Your task to perform on an android device: refresh tabs in the chrome app Image 0: 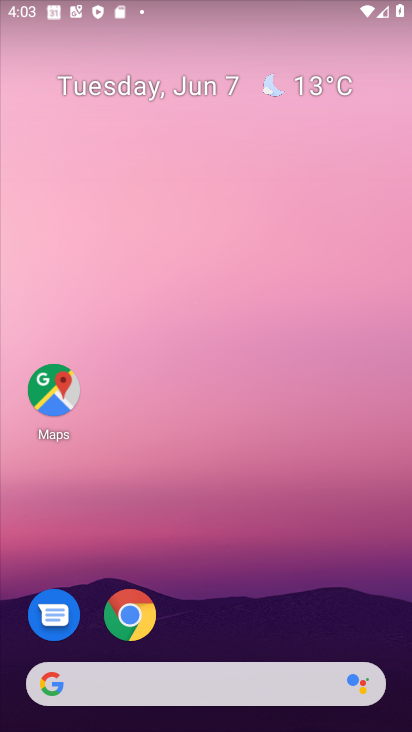
Step 0: drag from (223, 700) to (365, 22)
Your task to perform on an android device: refresh tabs in the chrome app Image 1: 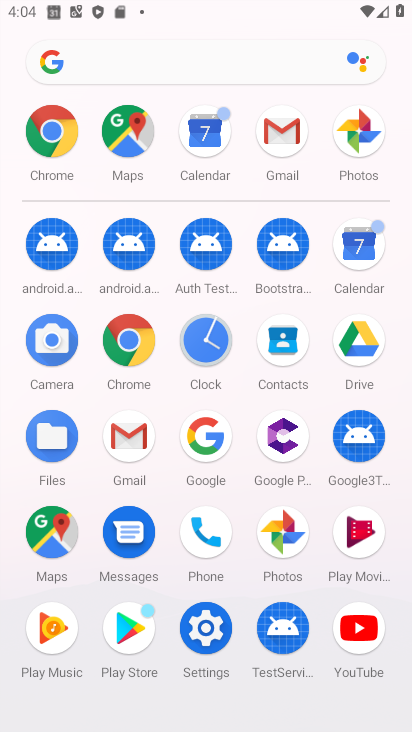
Step 1: click (52, 129)
Your task to perform on an android device: refresh tabs in the chrome app Image 2: 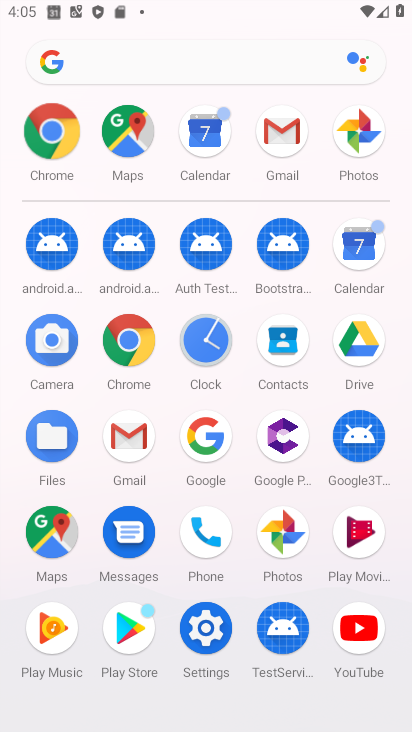
Step 2: click (52, 129)
Your task to perform on an android device: refresh tabs in the chrome app Image 3: 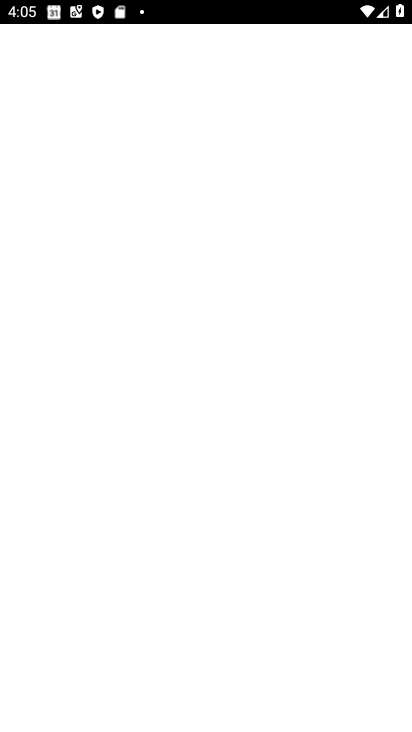
Step 3: click (48, 130)
Your task to perform on an android device: refresh tabs in the chrome app Image 4: 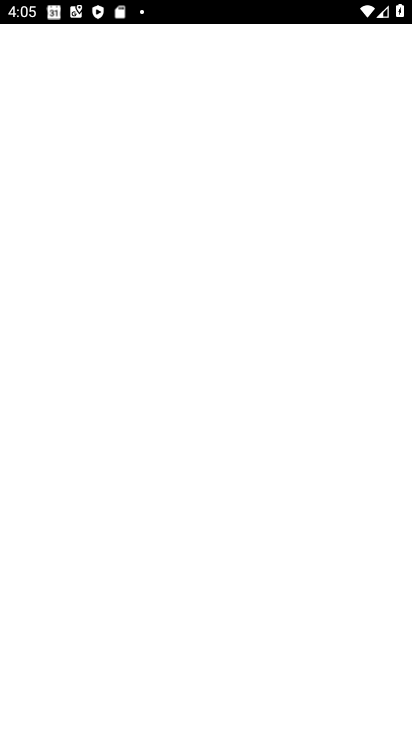
Step 4: click (46, 129)
Your task to perform on an android device: refresh tabs in the chrome app Image 5: 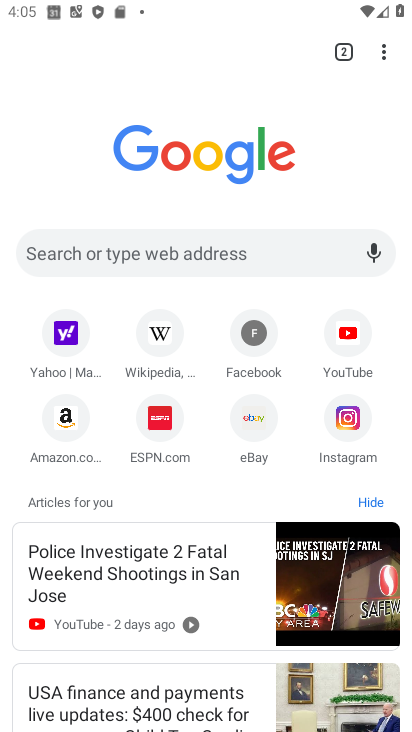
Step 5: click (378, 61)
Your task to perform on an android device: refresh tabs in the chrome app Image 6: 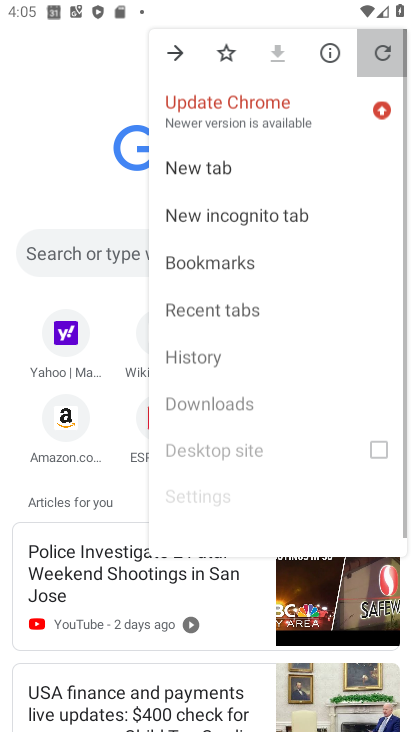
Step 6: click (378, 61)
Your task to perform on an android device: refresh tabs in the chrome app Image 7: 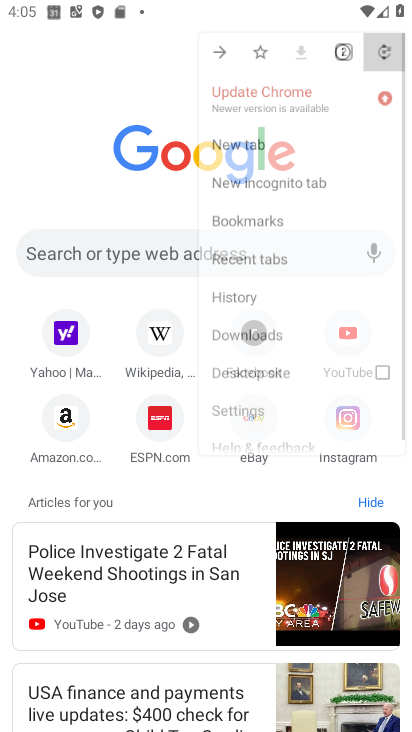
Step 7: click (378, 61)
Your task to perform on an android device: refresh tabs in the chrome app Image 8: 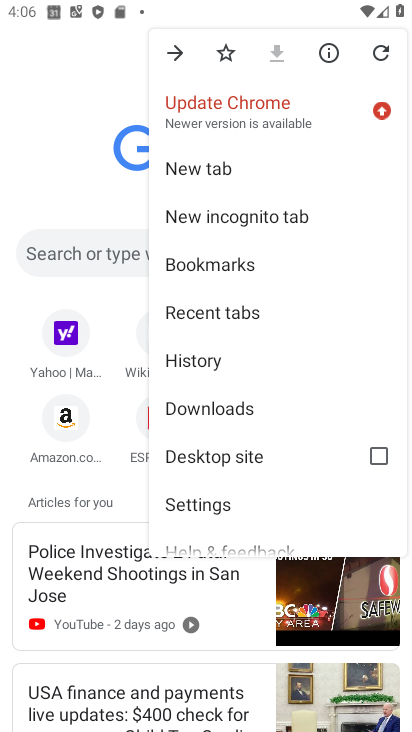
Step 8: click (380, 61)
Your task to perform on an android device: refresh tabs in the chrome app Image 9: 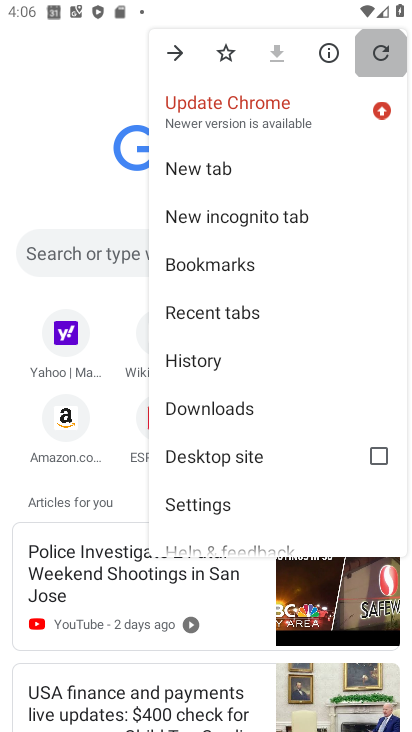
Step 9: click (384, 59)
Your task to perform on an android device: refresh tabs in the chrome app Image 10: 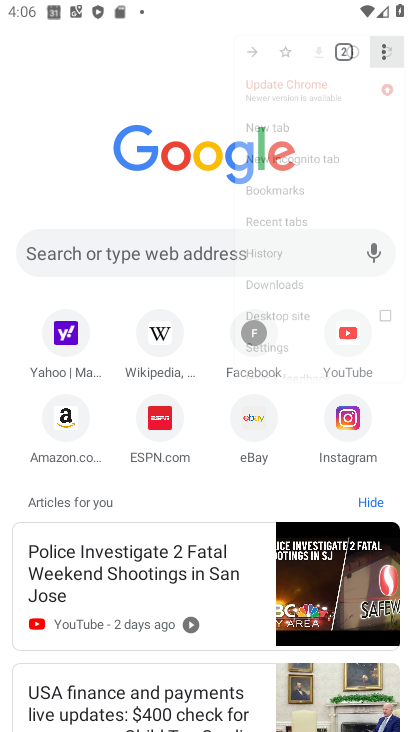
Step 10: click (385, 55)
Your task to perform on an android device: refresh tabs in the chrome app Image 11: 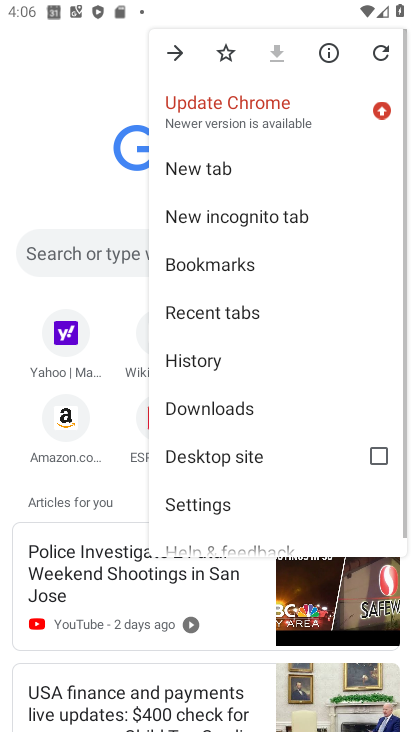
Step 11: click (382, 54)
Your task to perform on an android device: refresh tabs in the chrome app Image 12: 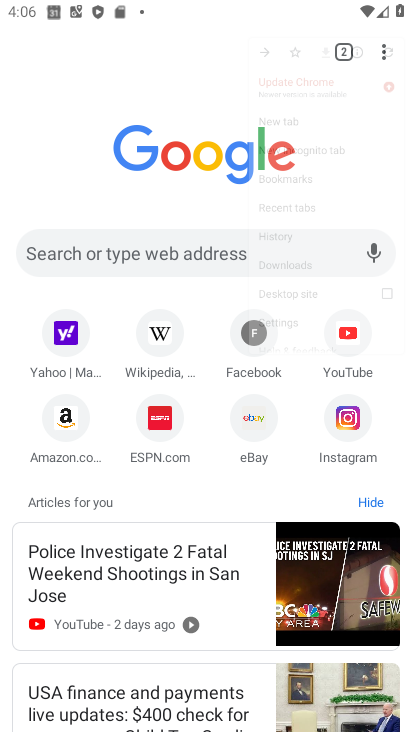
Step 12: click (382, 54)
Your task to perform on an android device: refresh tabs in the chrome app Image 13: 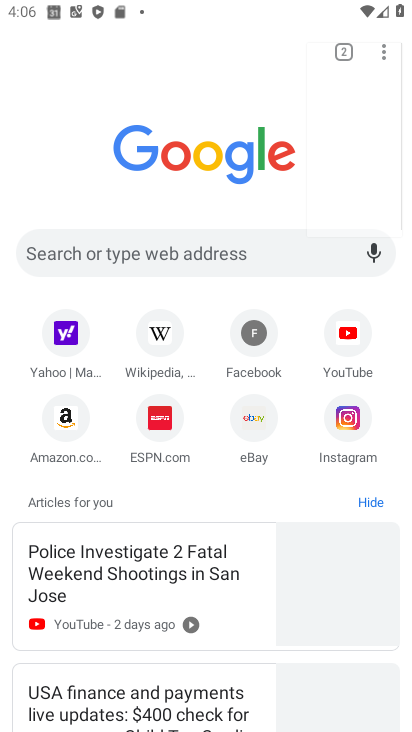
Step 13: click (382, 54)
Your task to perform on an android device: refresh tabs in the chrome app Image 14: 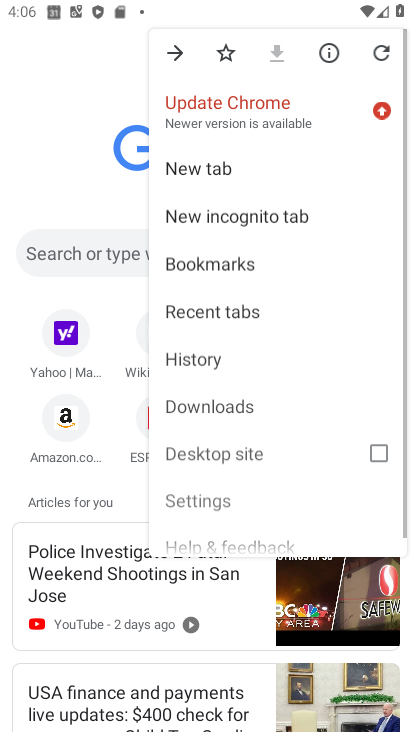
Step 14: click (380, 54)
Your task to perform on an android device: refresh tabs in the chrome app Image 15: 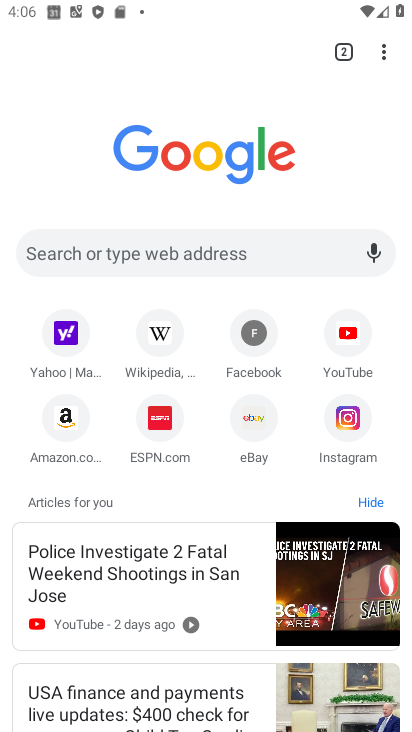
Step 15: task complete